Your task to perform on an android device: open chrome privacy settings Image 0: 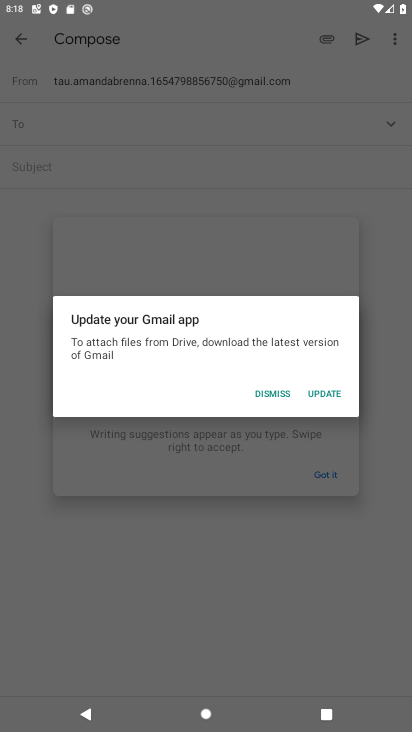
Step 0: click (106, 607)
Your task to perform on an android device: open chrome privacy settings Image 1: 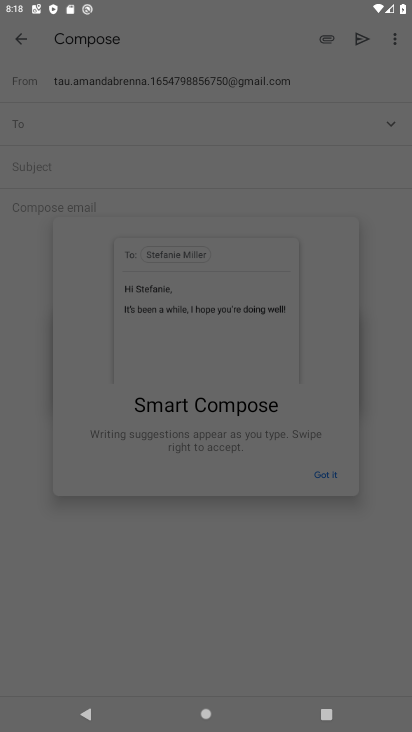
Step 1: press home button
Your task to perform on an android device: open chrome privacy settings Image 2: 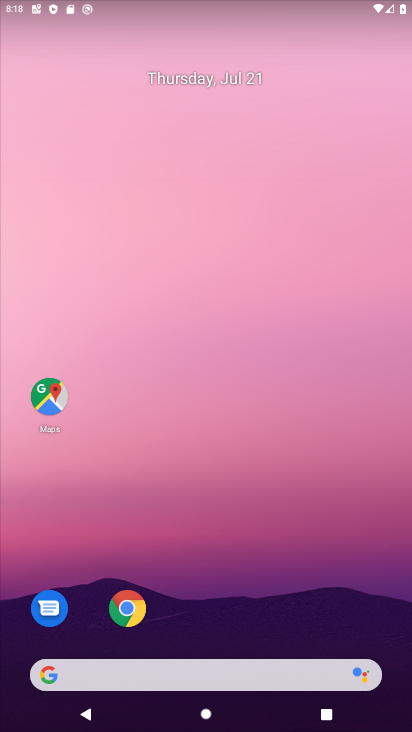
Step 2: click (112, 604)
Your task to perform on an android device: open chrome privacy settings Image 3: 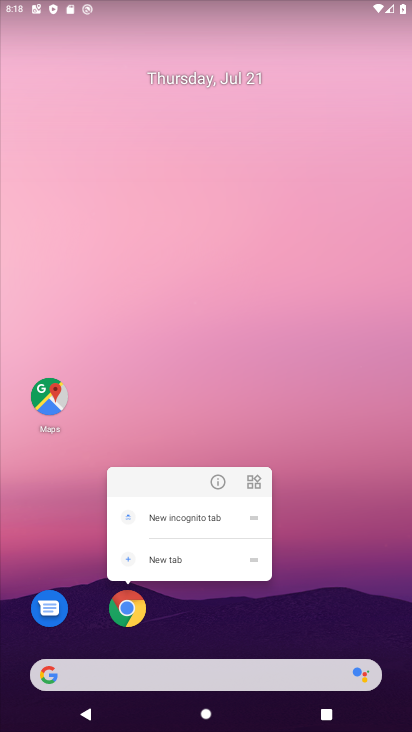
Step 3: click (118, 607)
Your task to perform on an android device: open chrome privacy settings Image 4: 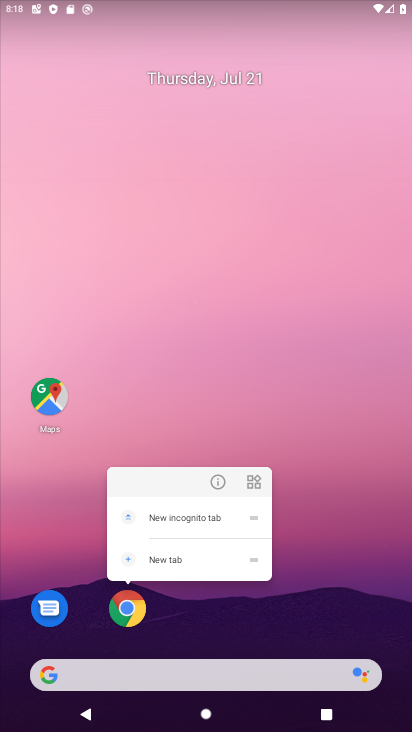
Step 4: click (125, 607)
Your task to perform on an android device: open chrome privacy settings Image 5: 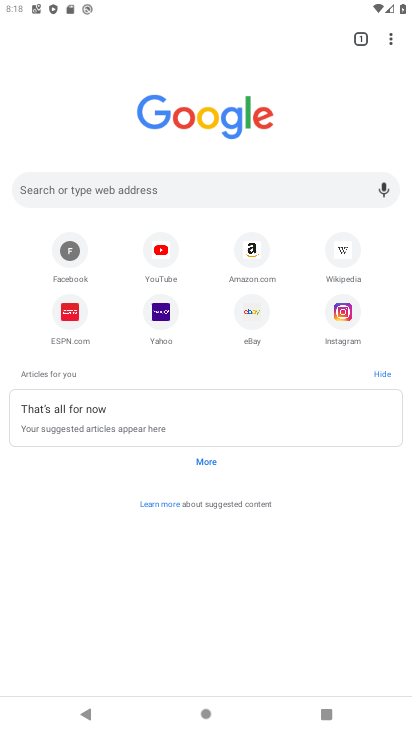
Step 5: click (390, 31)
Your task to perform on an android device: open chrome privacy settings Image 6: 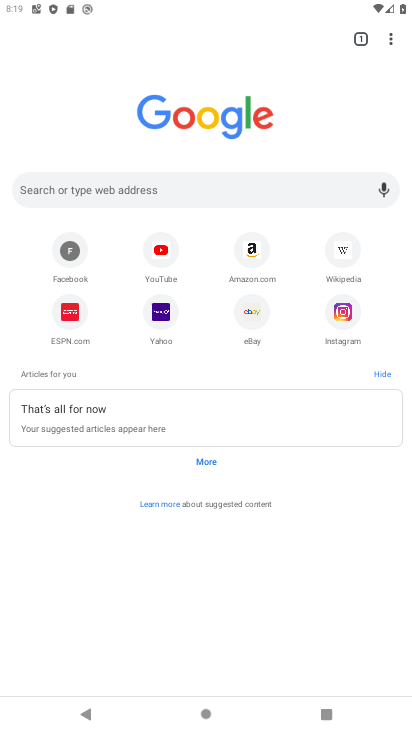
Step 6: click (390, 39)
Your task to perform on an android device: open chrome privacy settings Image 7: 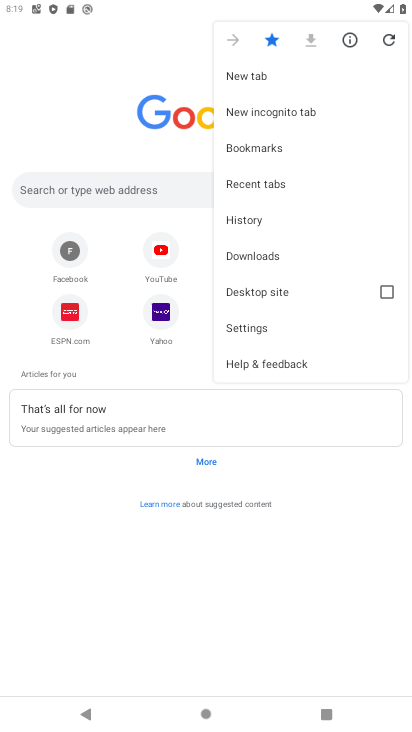
Step 7: click (250, 329)
Your task to perform on an android device: open chrome privacy settings Image 8: 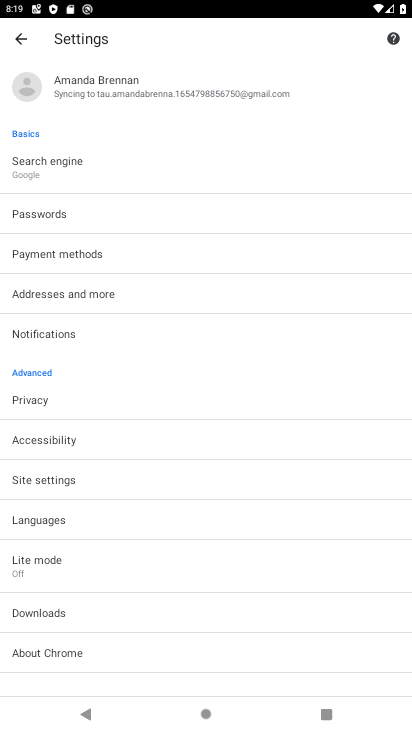
Step 8: click (51, 400)
Your task to perform on an android device: open chrome privacy settings Image 9: 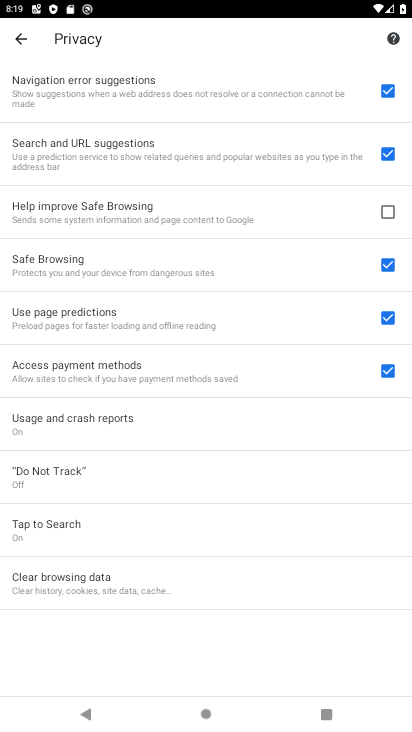
Step 9: task complete